Your task to perform on an android device: Open the stopwatch Image 0: 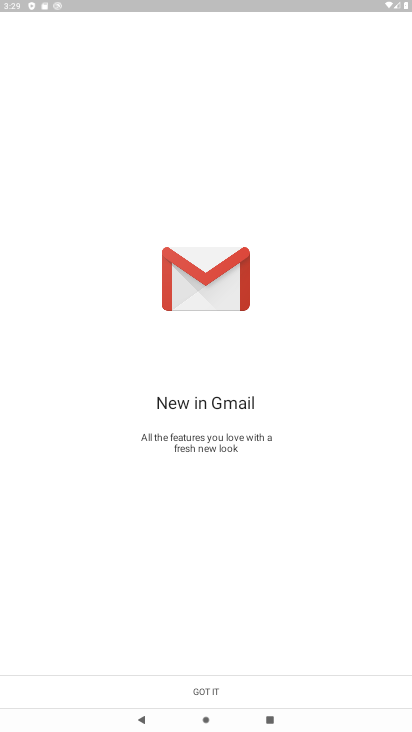
Step 0: press home button
Your task to perform on an android device: Open the stopwatch Image 1: 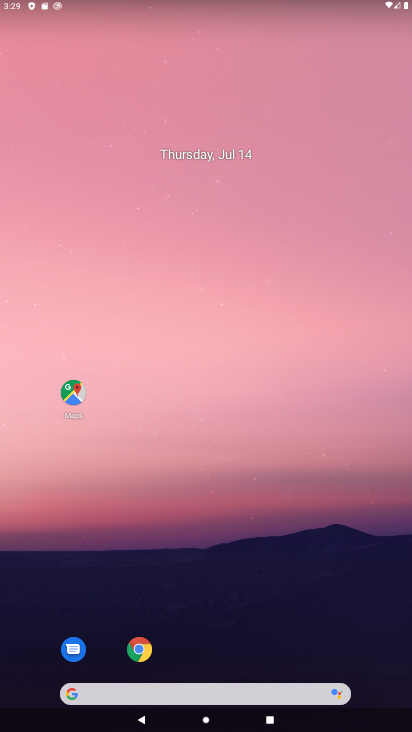
Step 1: drag from (233, 644) to (358, 17)
Your task to perform on an android device: Open the stopwatch Image 2: 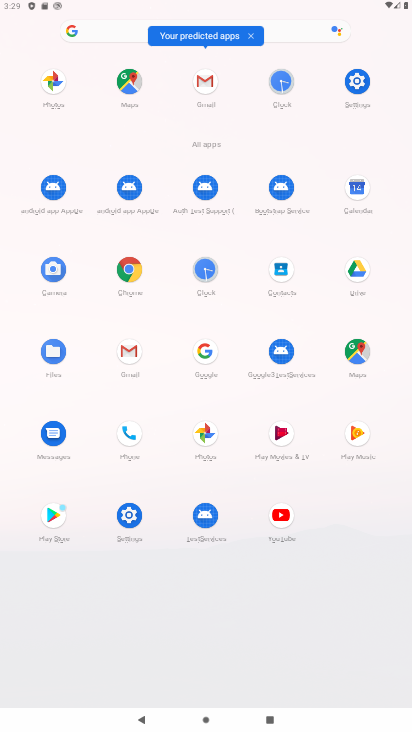
Step 2: click (204, 278)
Your task to perform on an android device: Open the stopwatch Image 3: 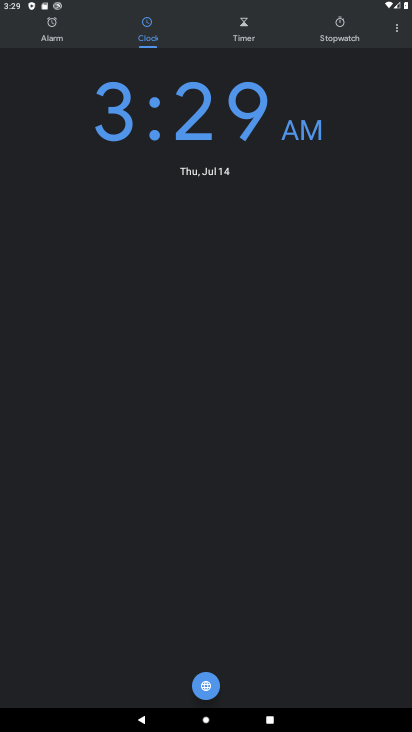
Step 3: click (315, 30)
Your task to perform on an android device: Open the stopwatch Image 4: 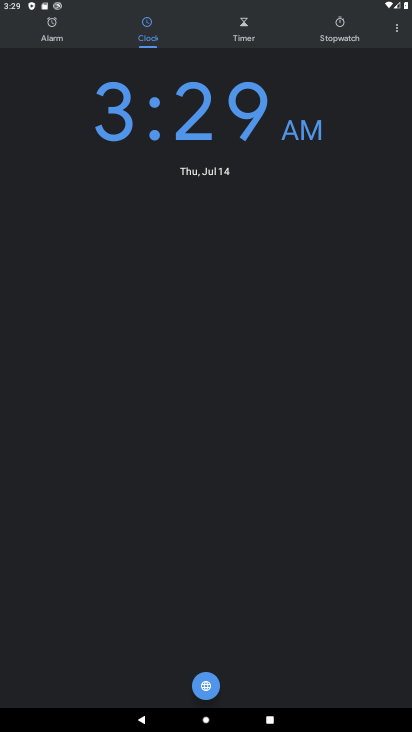
Step 4: click (344, 32)
Your task to perform on an android device: Open the stopwatch Image 5: 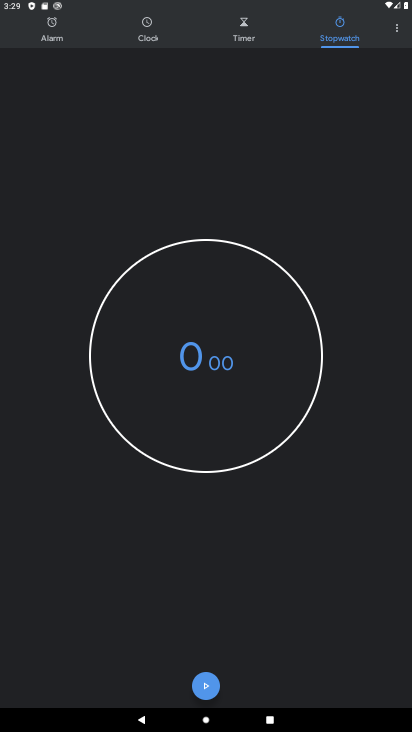
Step 5: click (213, 691)
Your task to perform on an android device: Open the stopwatch Image 6: 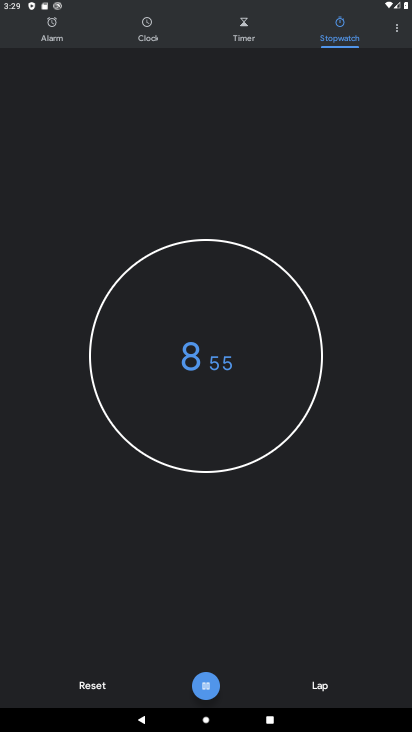
Step 6: task complete